Your task to perform on an android device: Go to sound settings Image 0: 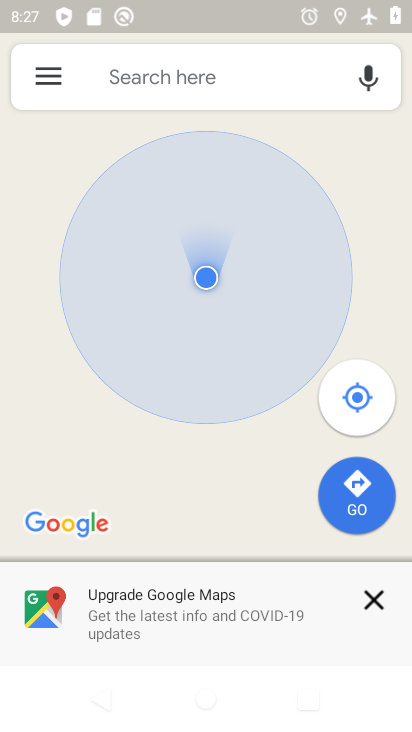
Step 0: press home button
Your task to perform on an android device: Go to sound settings Image 1: 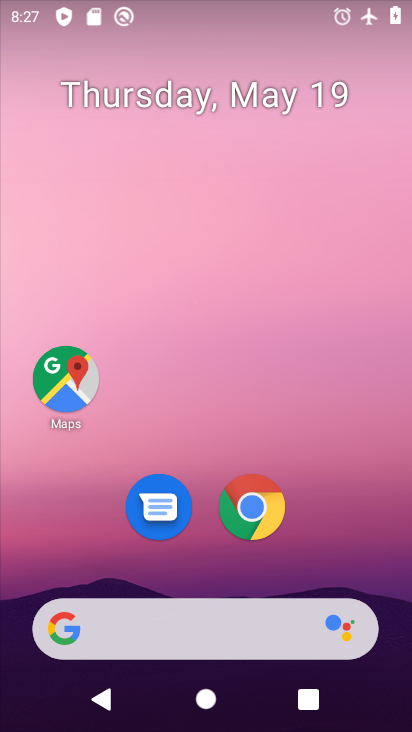
Step 1: drag from (226, 725) to (219, 199)
Your task to perform on an android device: Go to sound settings Image 2: 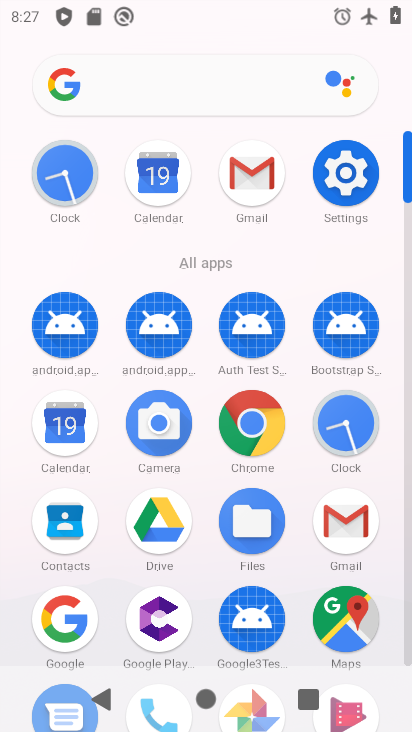
Step 2: click (338, 172)
Your task to perform on an android device: Go to sound settings Image 3: 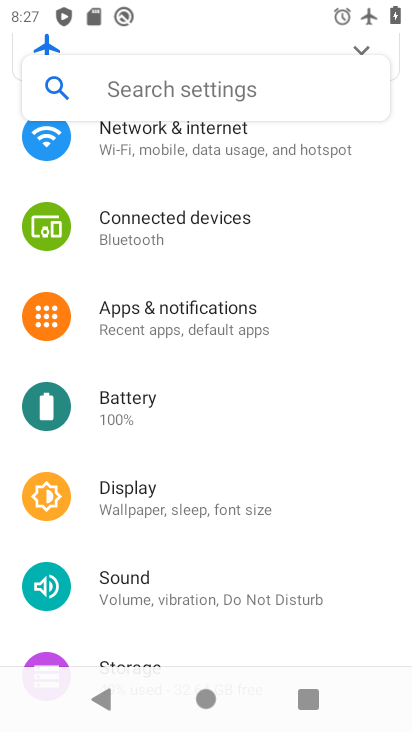
Step 3: click (131, 584)
Your task to perform on an android device: Go to sound settings Image 4: 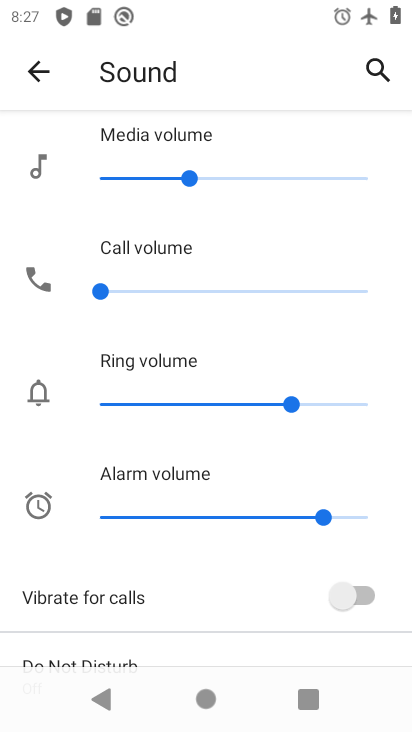
Step 4: task complete